Your task to perform on an android device: Open Wikipedia Image 0: 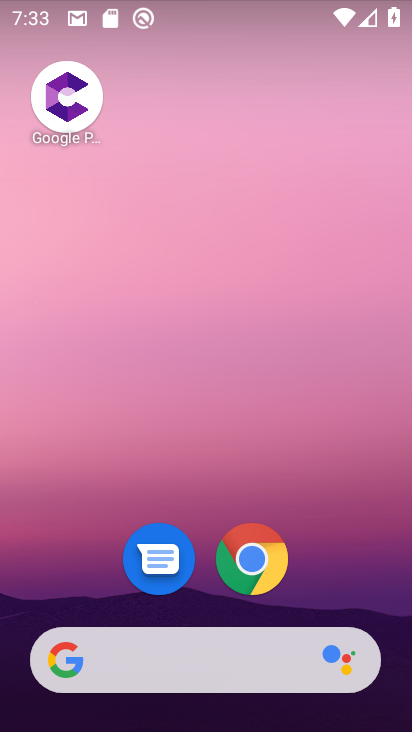
Step 0: drag from (365, 599) to (369, 264)
Your task to perform on an android device: Open Wikipedia Image 1: 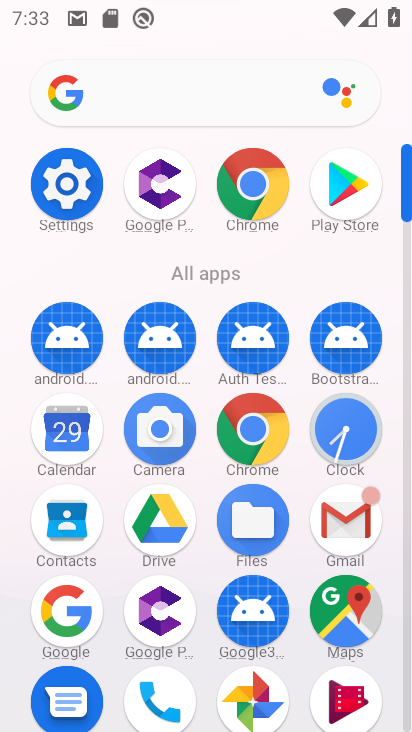
Step 1: click (261, 458)
Your task to perform on an android device: Open Wikipedia Image 2: 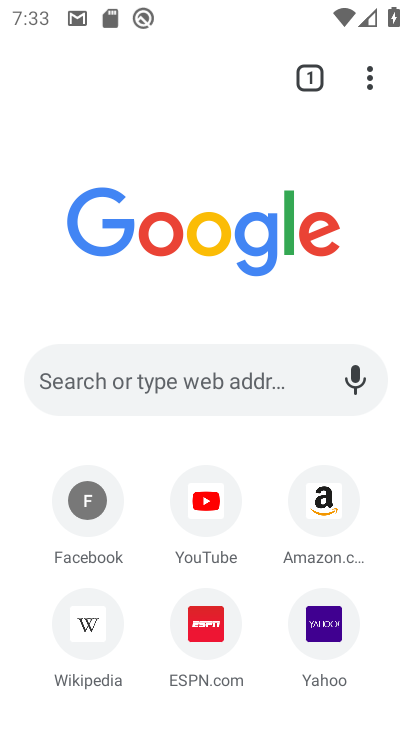
Step 2: click (275, 392)
Your task to perform on an android device: Open Wikipedia Image 3: 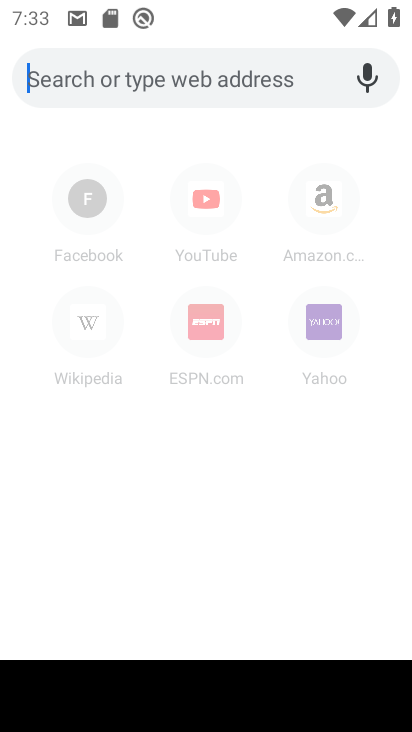
Step 3: type "wikipedia"
Your task to perform on an android device: Open Wikipedia Image 4: 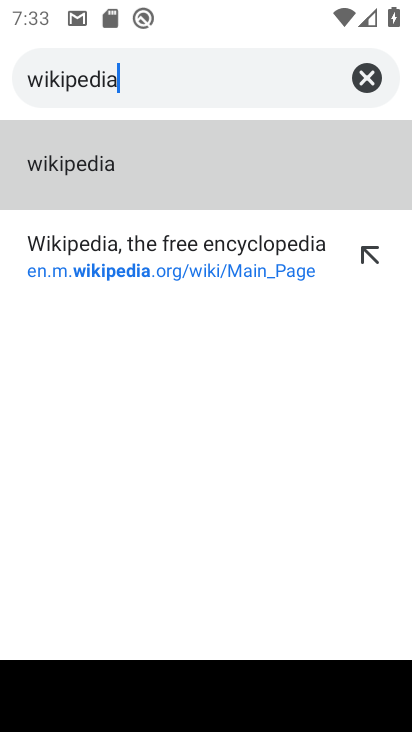
Step 4: click (245, 167)
Your task to perform on an android device: Open Wikipedia Image 5: 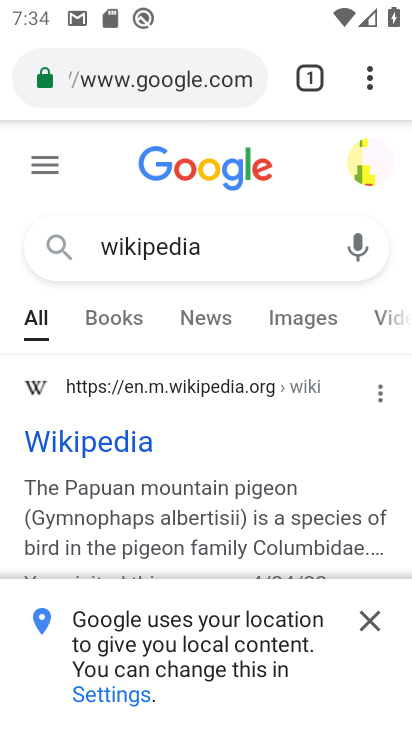
Step 5: click (111, 437)
Your task to perform on an android device: Open Wikipedia Image 6: 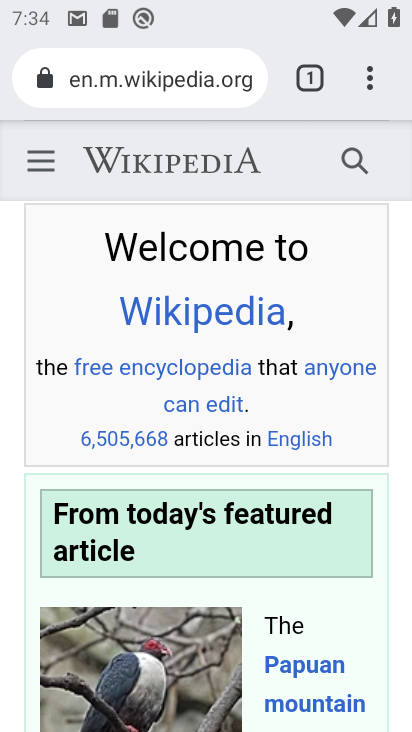
Step 6: task complete